Your task to perform on an android device: Open the stopwatch Image 0: 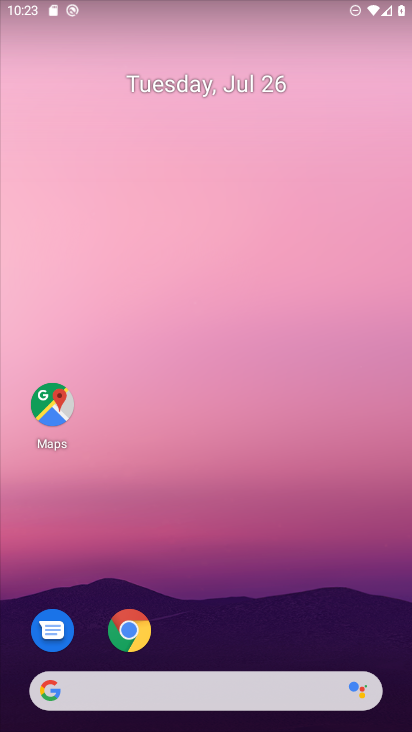
Step 0: drag from (377, 637) to (321, 212)
Your task to perform on an android device: Open the stopwatch Image 1: 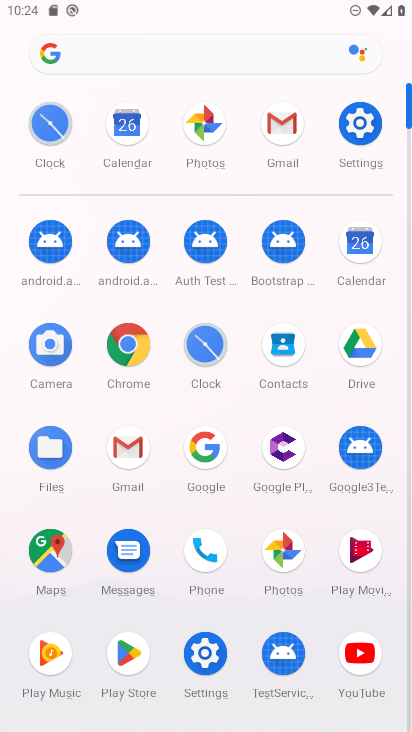
Step 1: click (202, 344)
Your task to perform on an android device: Open the stopwatch Image 2: 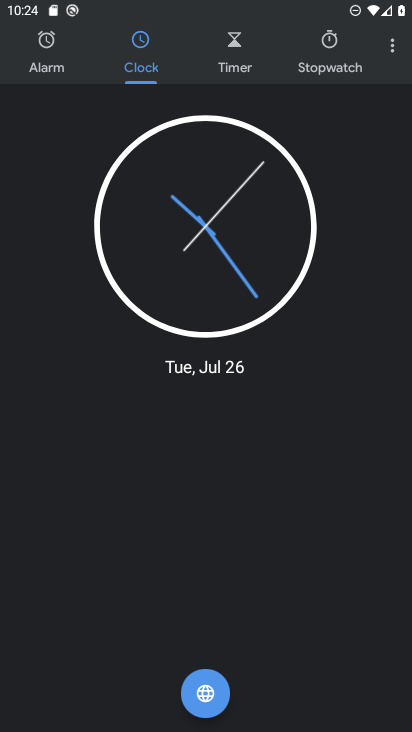
Step 2: click (330, 50)
Your task to perform on an android device: Open the stopwatch Image 3: 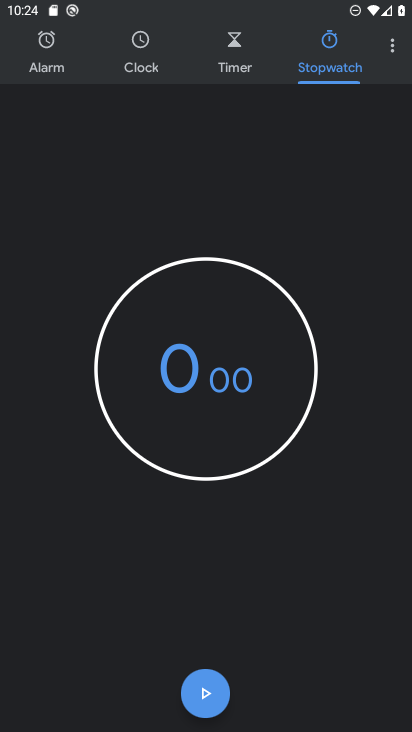
Step 3: task complete